Your task to perform on an android device: Open Wikipedia Image 0: 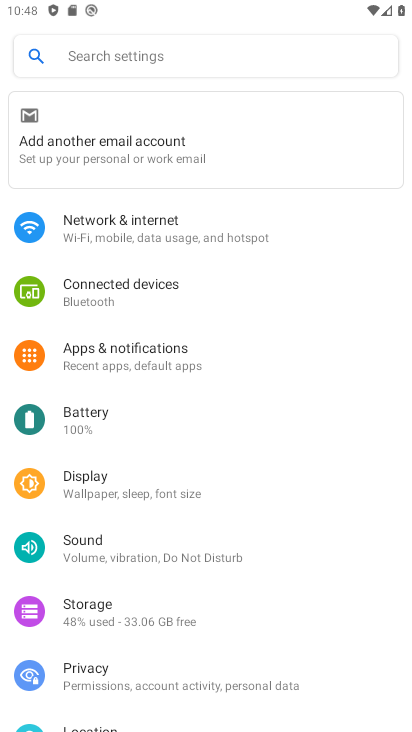
Step 0: press home button
Your task to perform on an android device: Open Wikipedia Image 1: 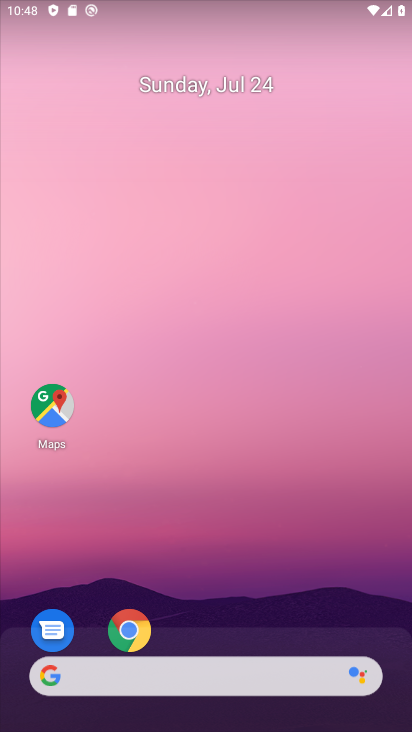
Step 1: click (131, 634)
Your task to perform on an android device: Open Wikipedia Image 2: 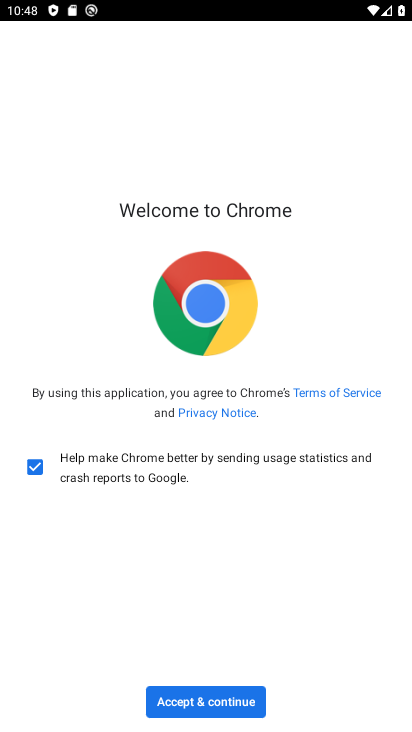
Step 2: click (173, 697)
Your task to perform on an android device: Open Wikipedia Image 3: 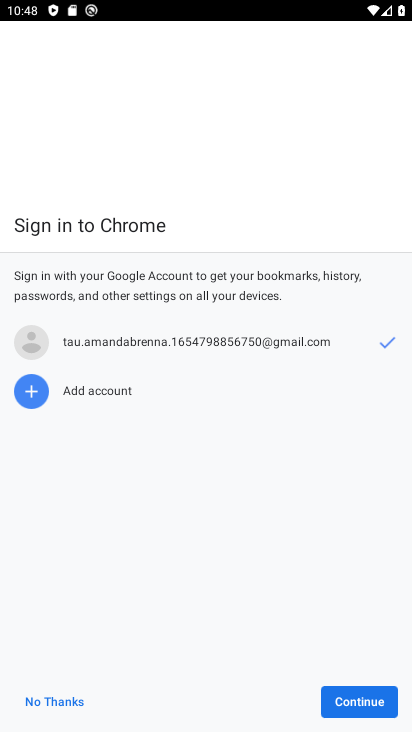
Step 3: click (345, 695)
Your task to perform on an android device: Open Wikipedia Image 4: 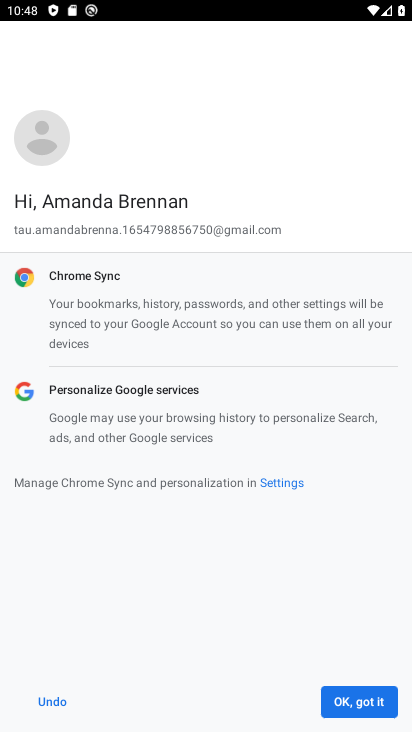
Step 4: click (351, 700)
Your task to perform on an android device: Open Wikipedia Image 5: 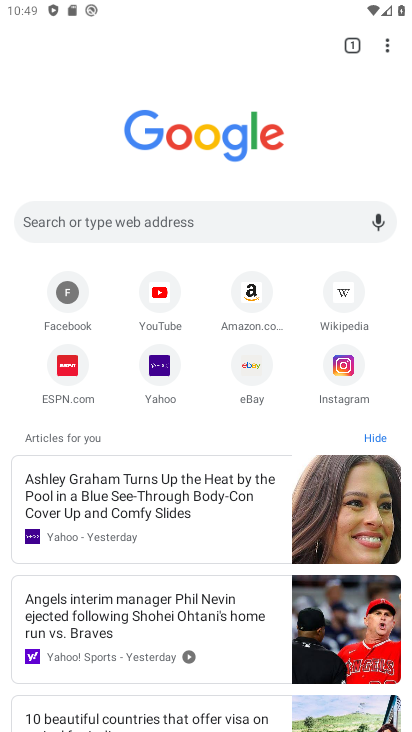
Step 5: click (344, 284)
Your task to perform on an android device: Open Wikipedia Image 6: 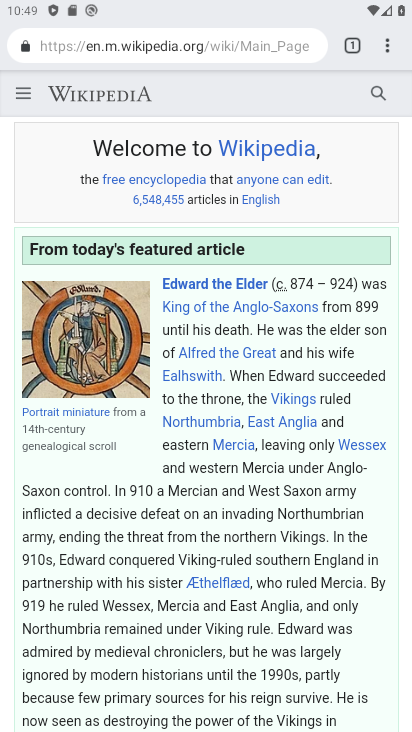
Step 6: task complete